Your task to perform on an android device: change timer sound Image 0: 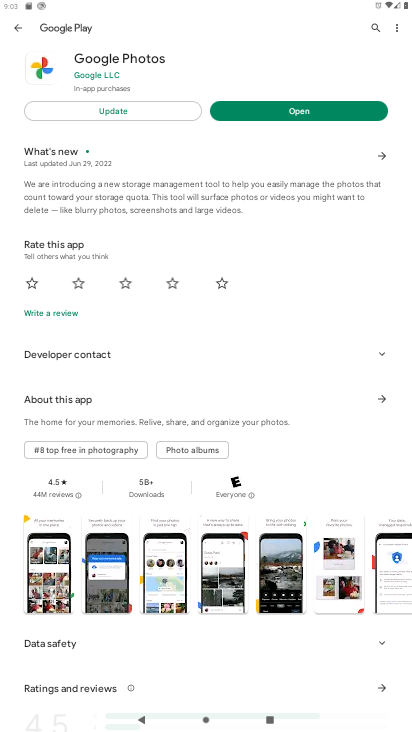
Step 0: press home button
Your task to perform on an android device: change timer sound Image 1: 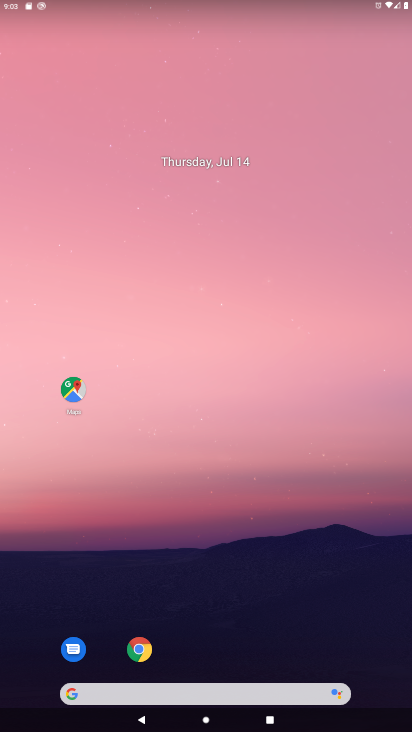
Step 1: click (252, 2)
Your task to perform on an android device: change timer sound Image 2: 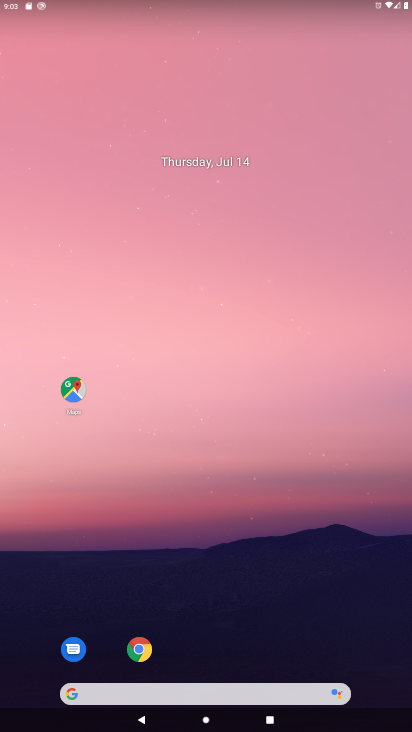
Step 2: drag from (229, 500) to (266, 39)
Your task to perform on an android device: change timer sound Image 3: 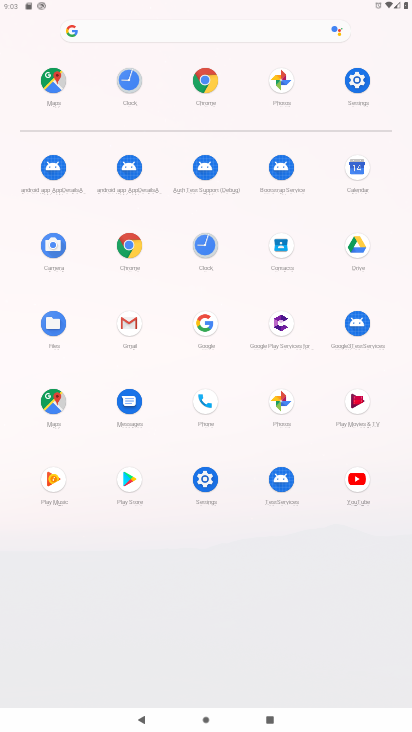
Step 3: click (219, 233)
Your task to perform on an android device: change timer sound Image 4: 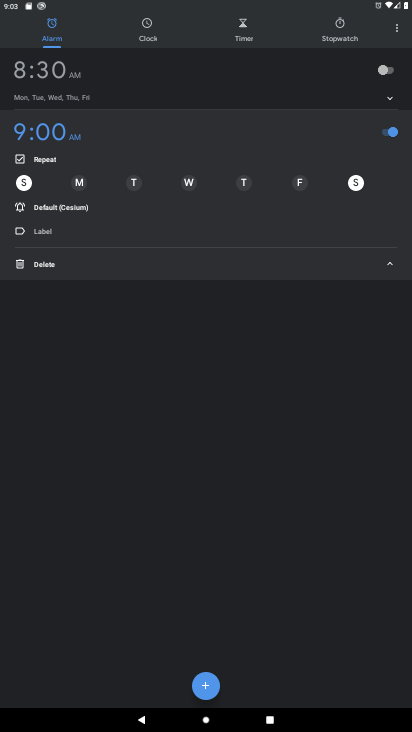
Step 4: click (394, 26)
Your task to perform on an android device: change timer sound Image 5: 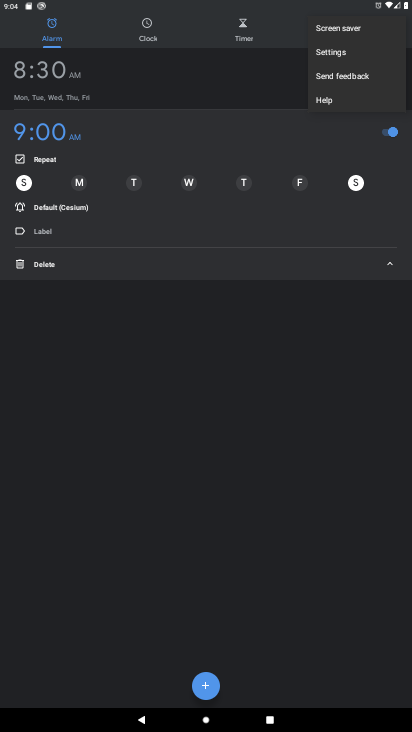
Step 5: click (351, 51)
Your task to perform on an android device: change timer sound Image 6: 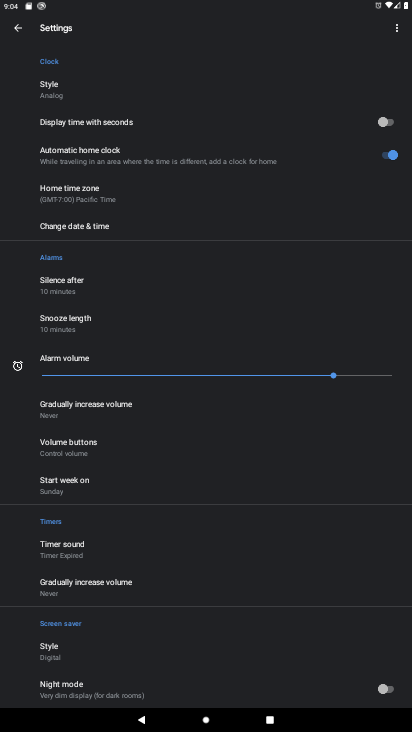
Step 6: click (79, 559)
Your task to perform on an android device: change timer sound Image 7: 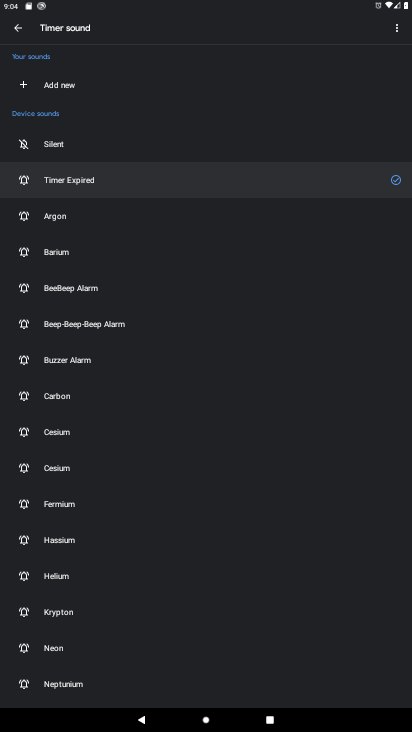
Step 7: click (73, 349)
Your task to perform on an android device: change timer sound Image 8: 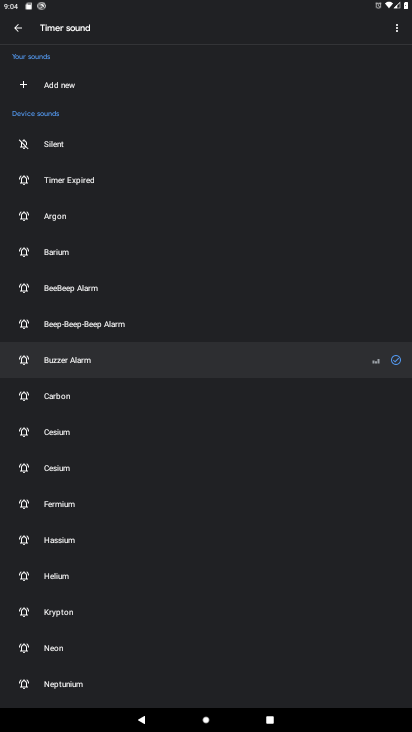
Step 8: task complete